Your task to perform on an android device: star an email in the gmail app Image 0: 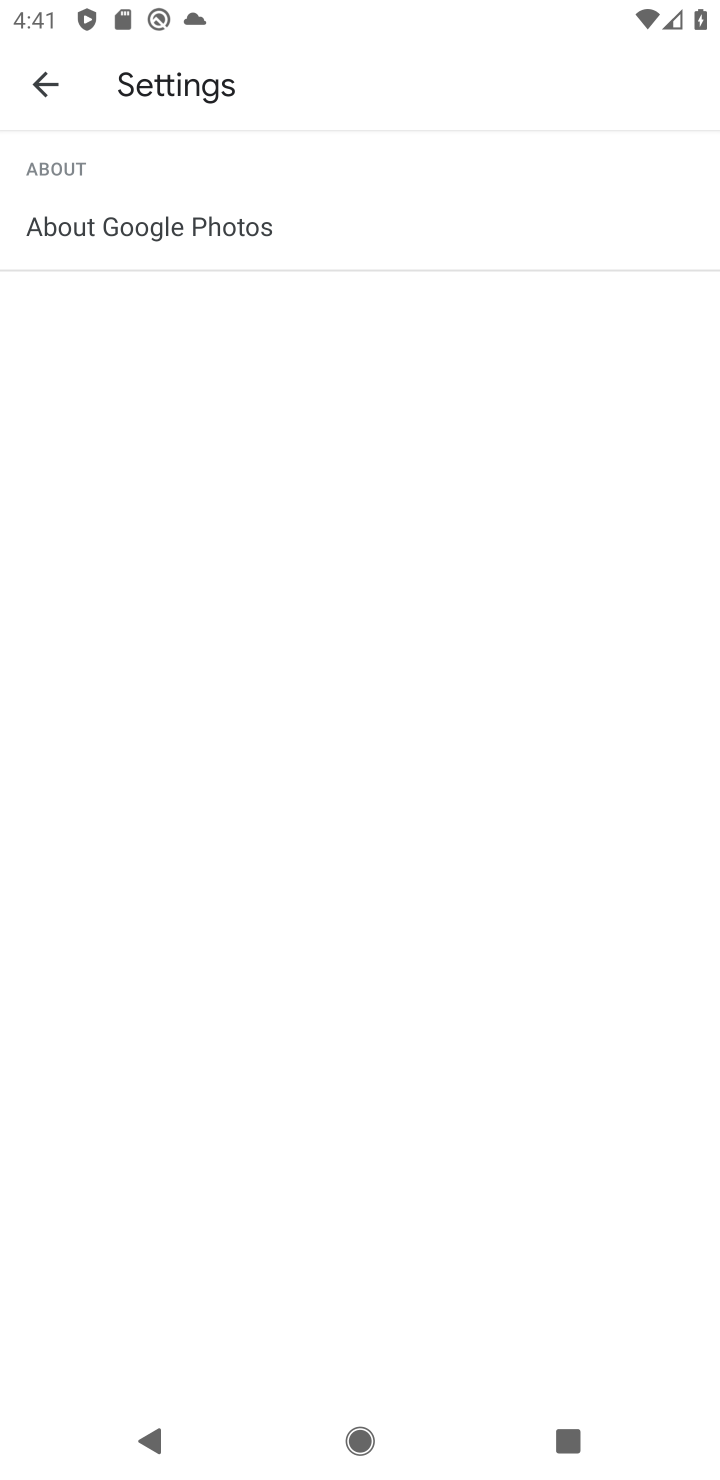
Step 0: press home button
Your task to perform on an android device: star an email in the gmail app Image 1: 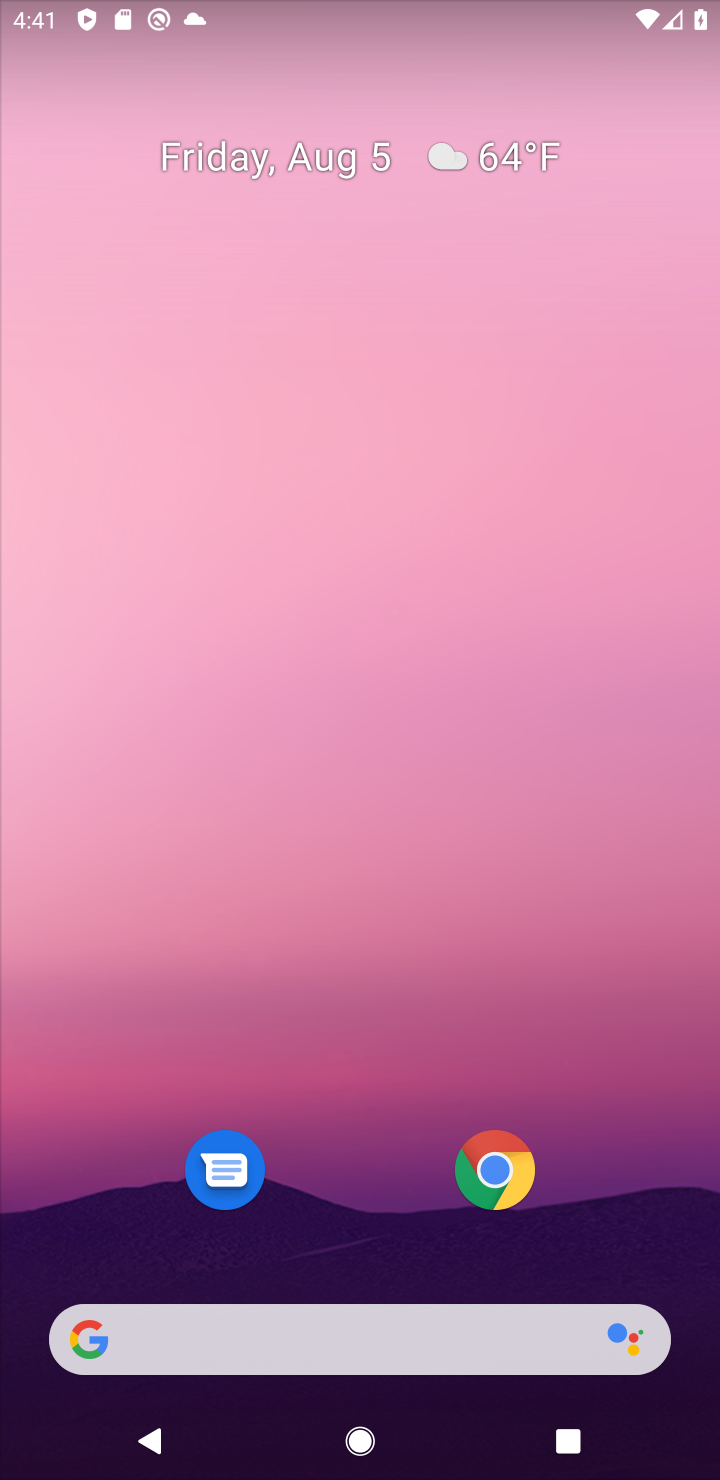
Step 1: drag from (315, 1009) to (296, 252)
Your task to perform on an android device: star an email in the gmail app Image 2: 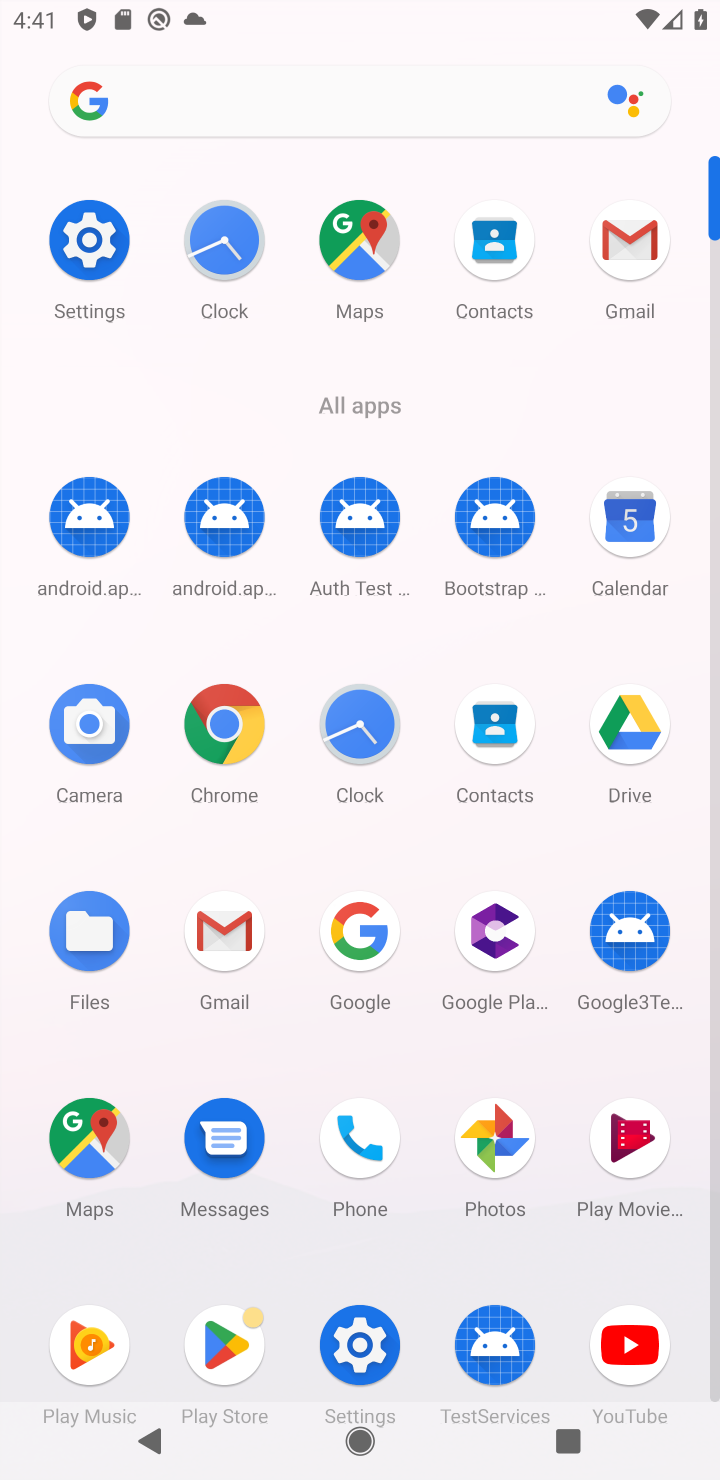
Step 2: click (620, 259)
Your task to perform on an android device: star an email in the gmail app Image 3: 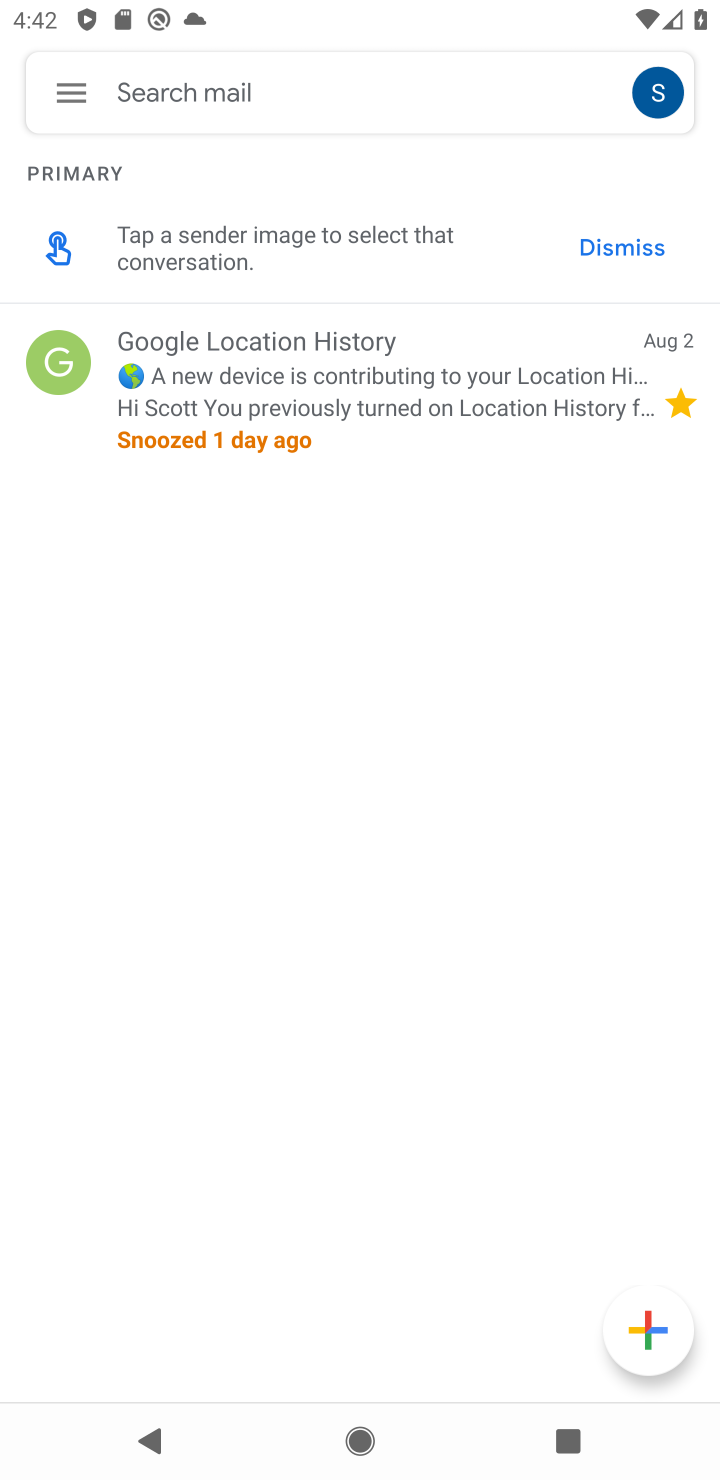
Step 3: click (294, 436)
Your task to perform on an android device: star an email in the gmail app Image 4: 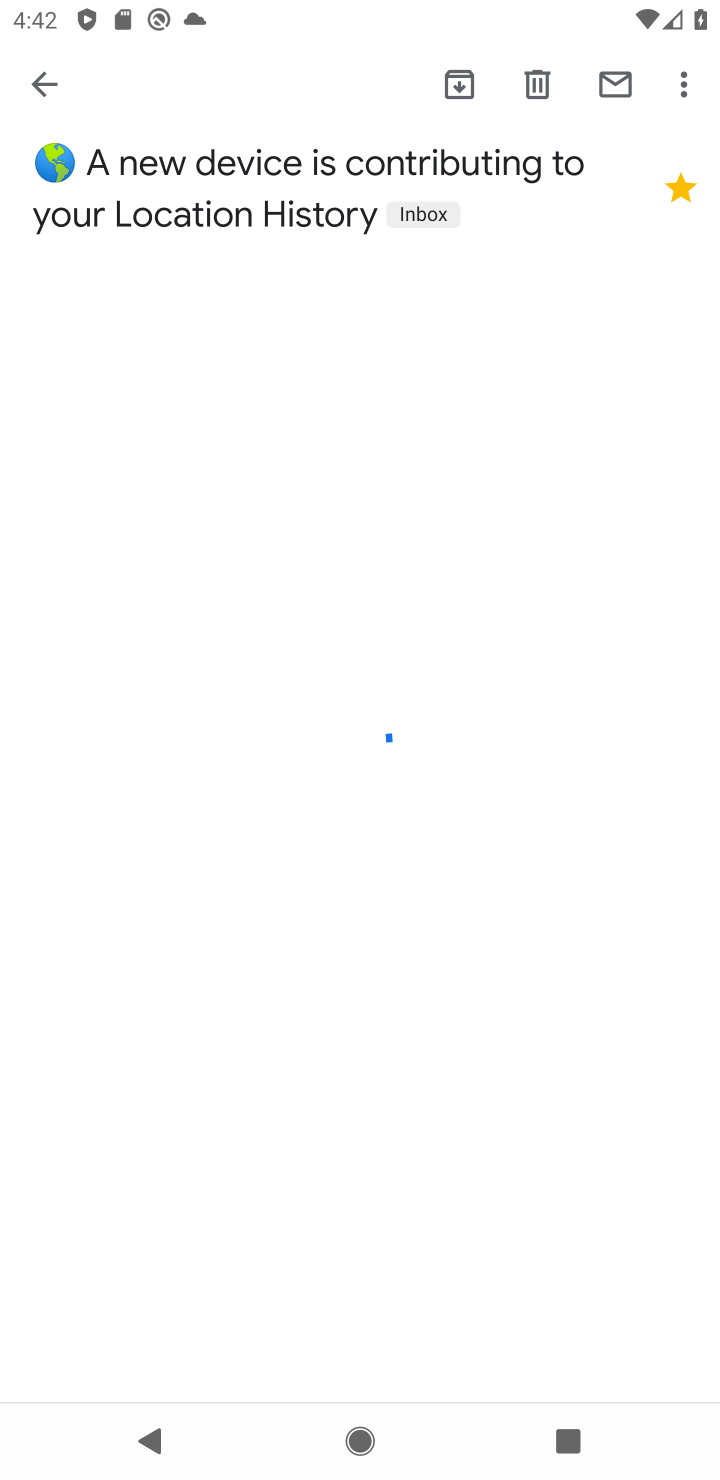
Step 4: task complete